Your task to perform on an android device: Open Chrome and go to the settings page Image 0: 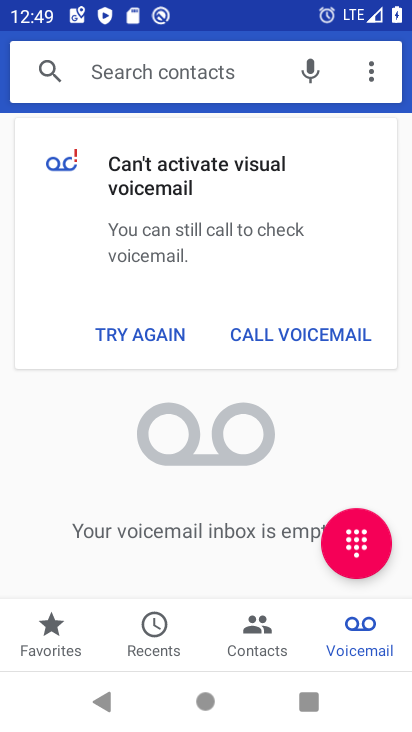
Step 0: press home button
Your task to perform on an android device: Open Chrome and go to the settings page Image 1: 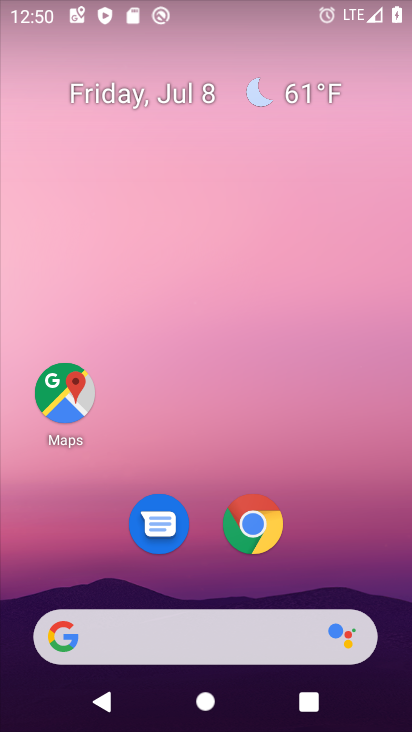
Step 1: click (260, 520)
Your task to perform on an android device: Open Chrome and go to the settings page Image 2: 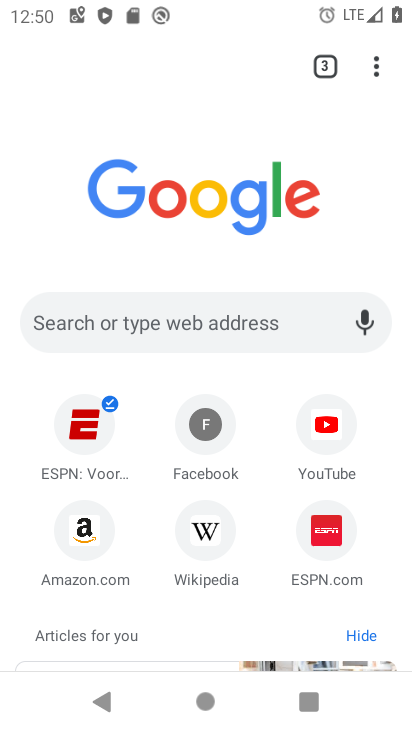
Step 2: click (377, 68)
Your task to perform on an android device: Open Chrome and go to the settings page Image 3: 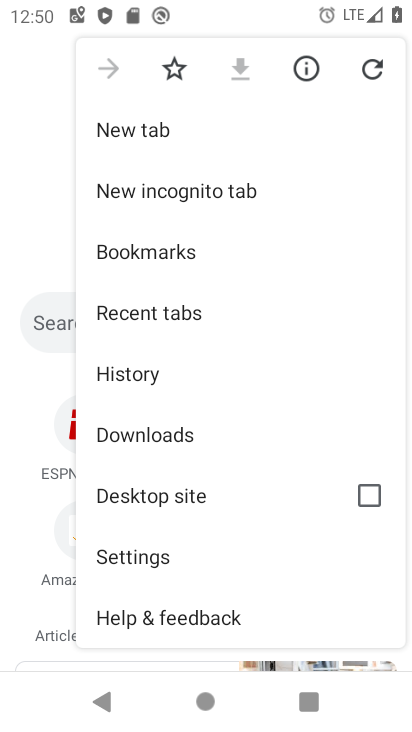
Step 3: click (147, 556)
Your task to perform on an android device: Open Chrome and go to the settings page Image 4: 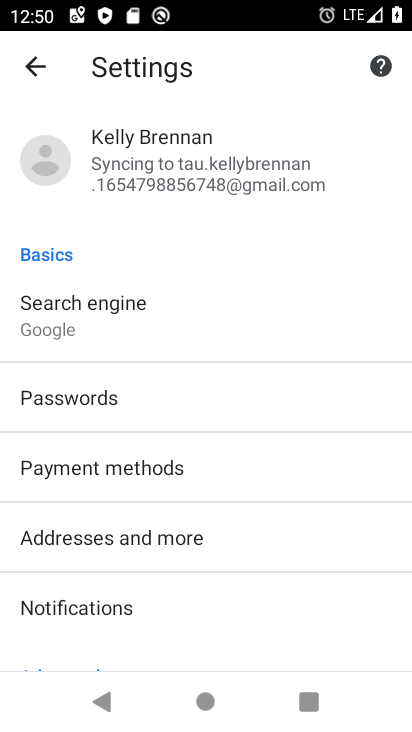
Step 4: task complete